Your task to perform on an android device: Clear the cart on target.com. Image 0: 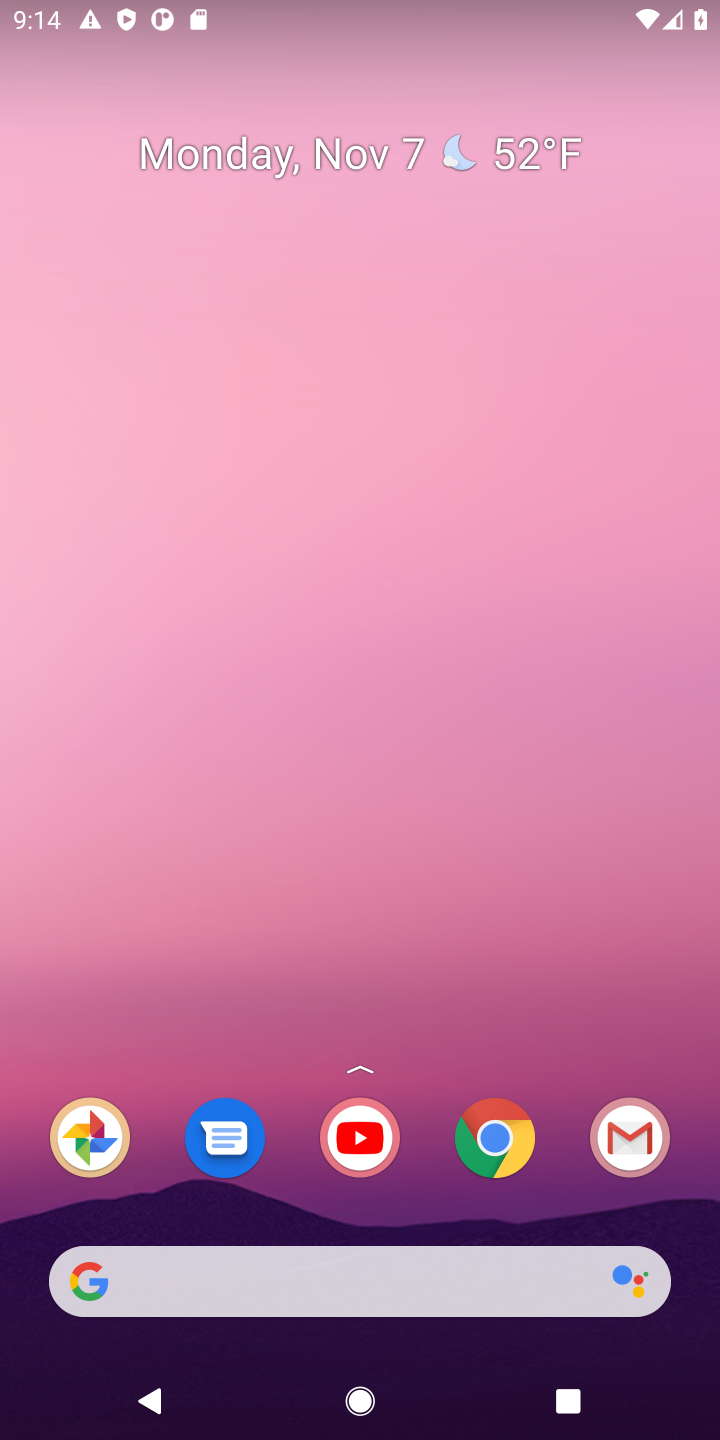
Step 0: click (375, 199)
Your task to perform on an android device: Clear the cart on target.com. Image 1: 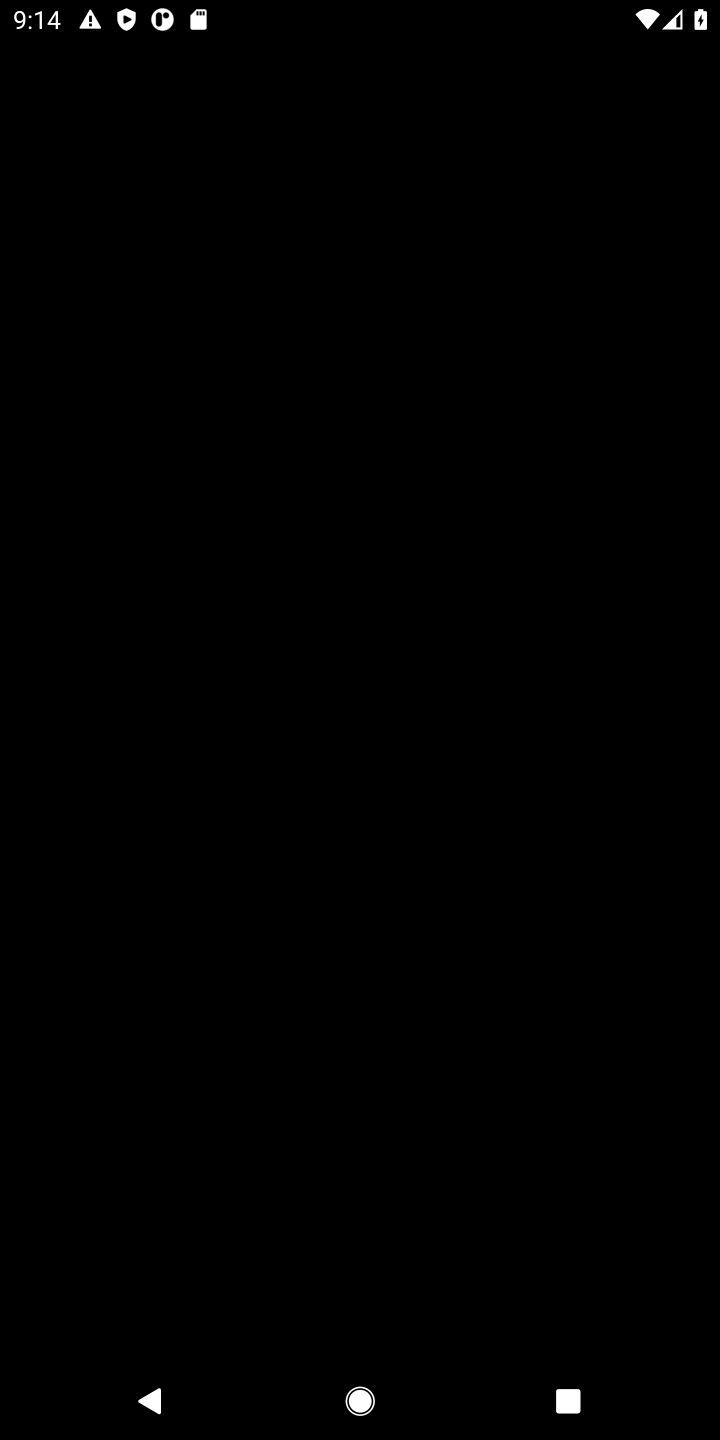
Step 1: press home button
Your task to perform on an android device: Clear the cart on target.com. Image 2: 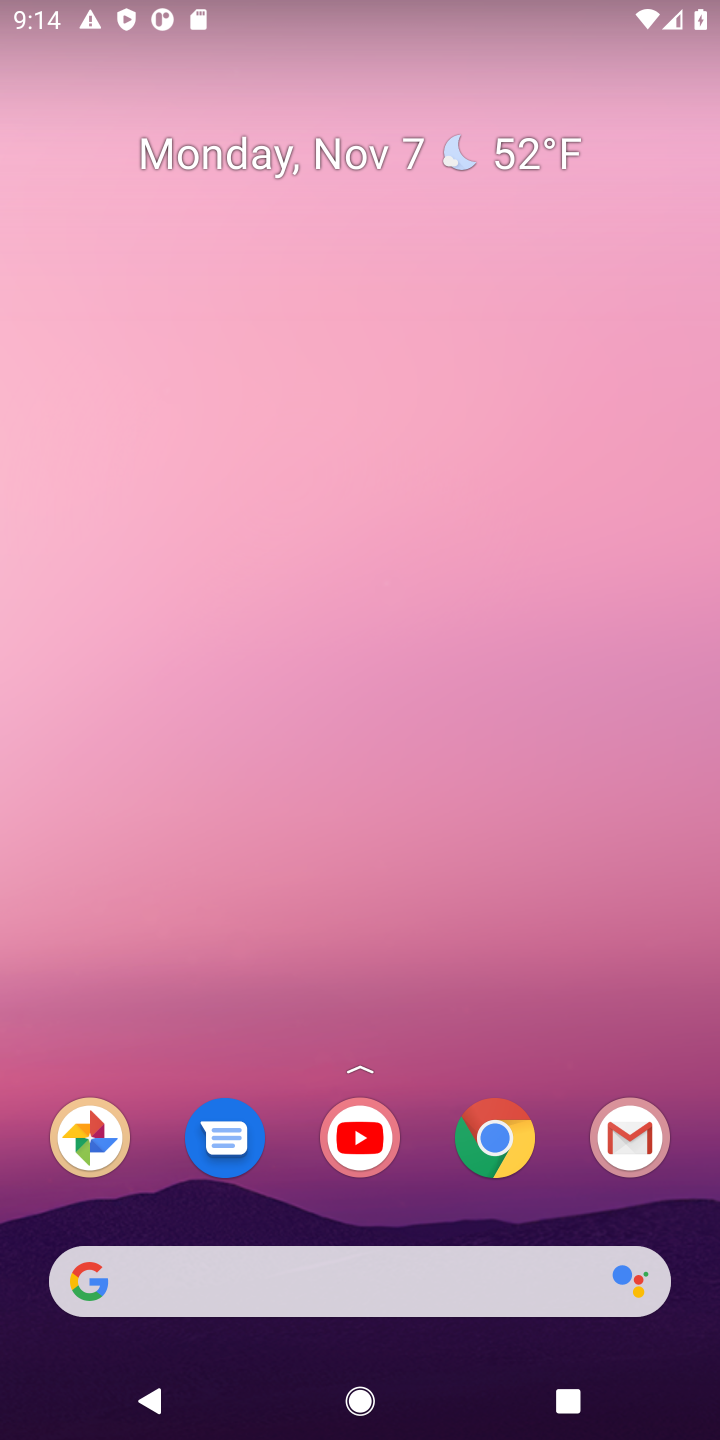
Step 2: drag from (405, 1217) to (421, 259)
Your task to perform on an android device: Clear the cart on target.com. Image 3: 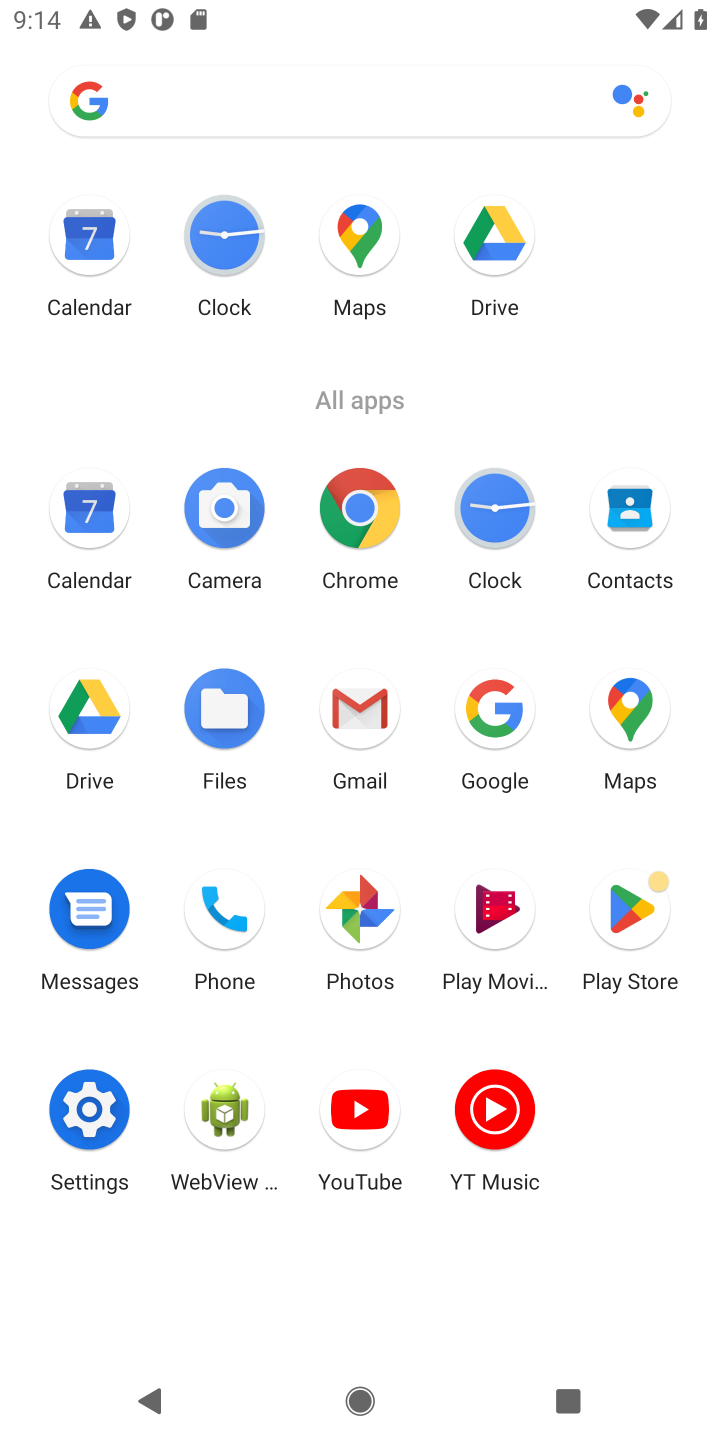
Step 3: click (366, 508)
Your task to perform on an android device: Clear the cart on target.com. Image 4: 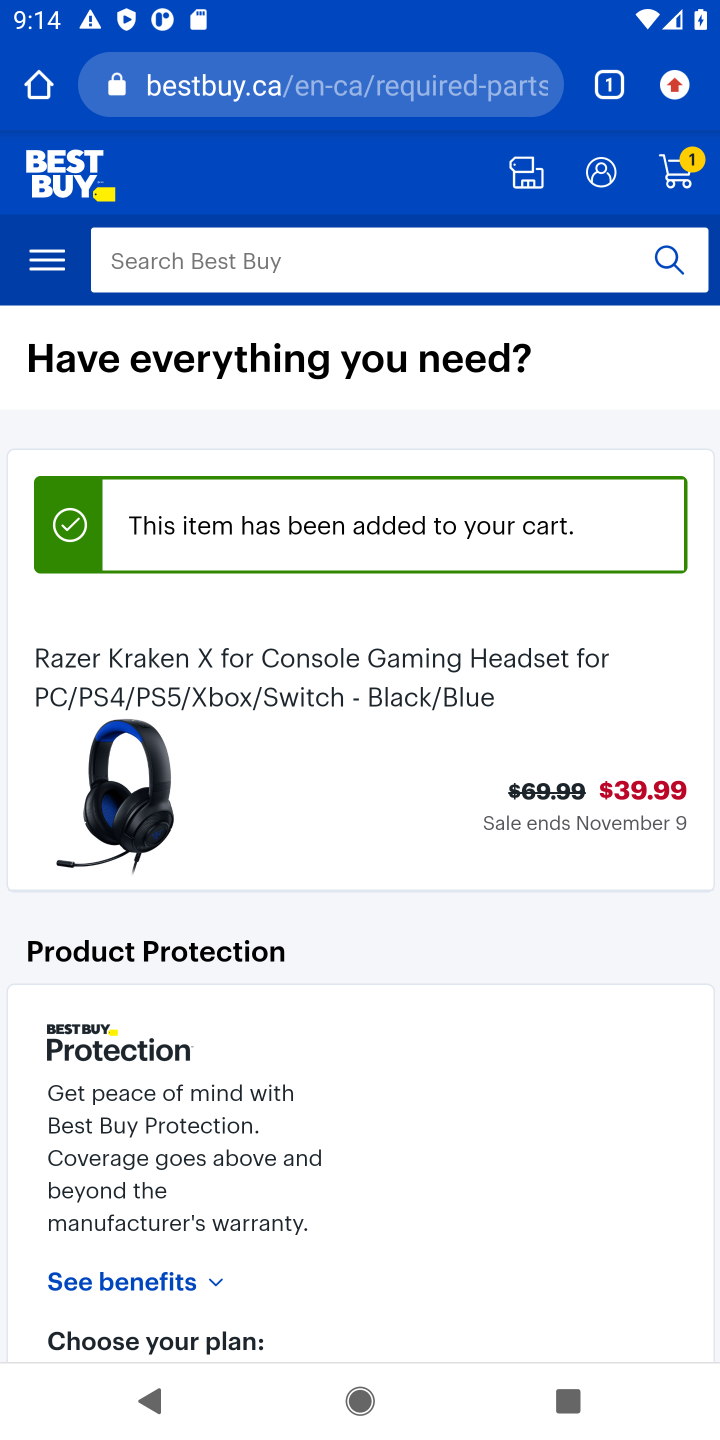
Step 4: click (408, 263)
Your task to perform on an android device: Clear the cart on target.com. Image 5: 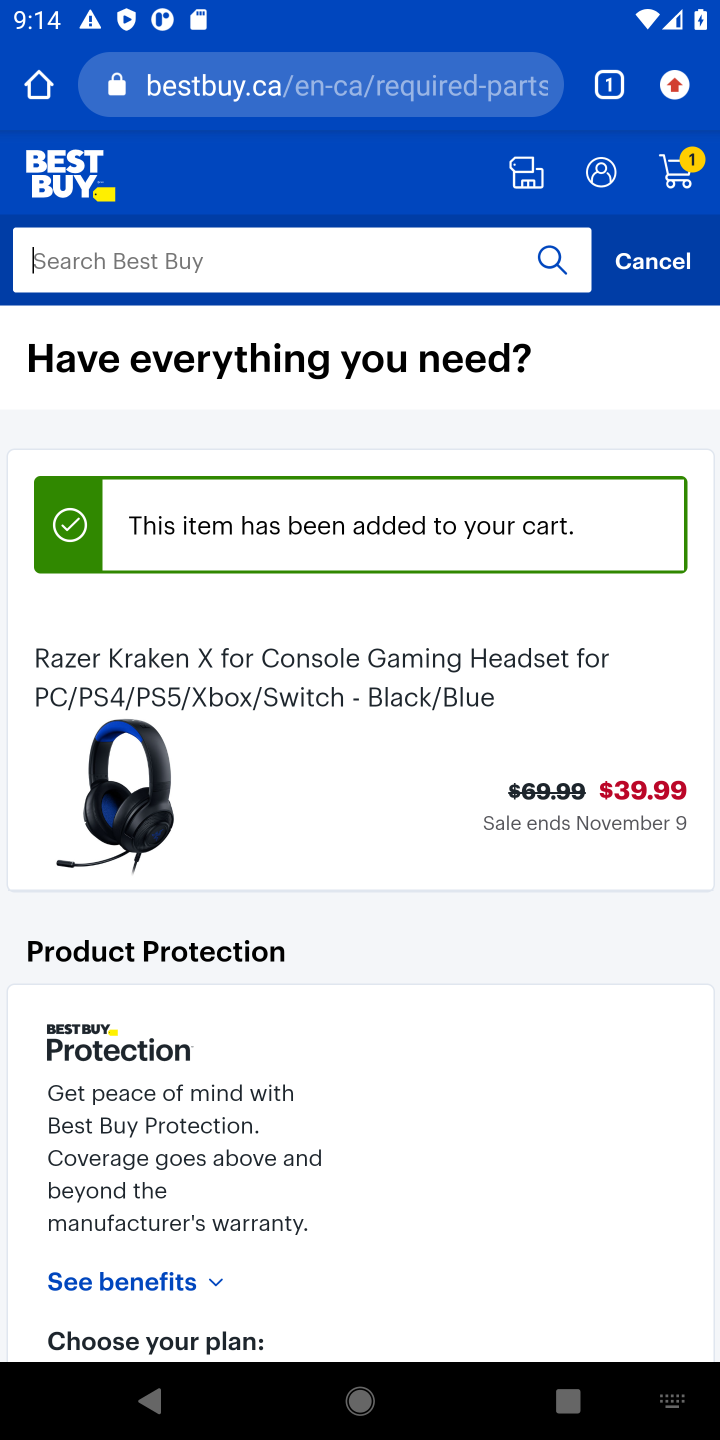
Step 5: click (311, 79)
Your task to perform on an android device: Clear the cart on target.com. Image 6: 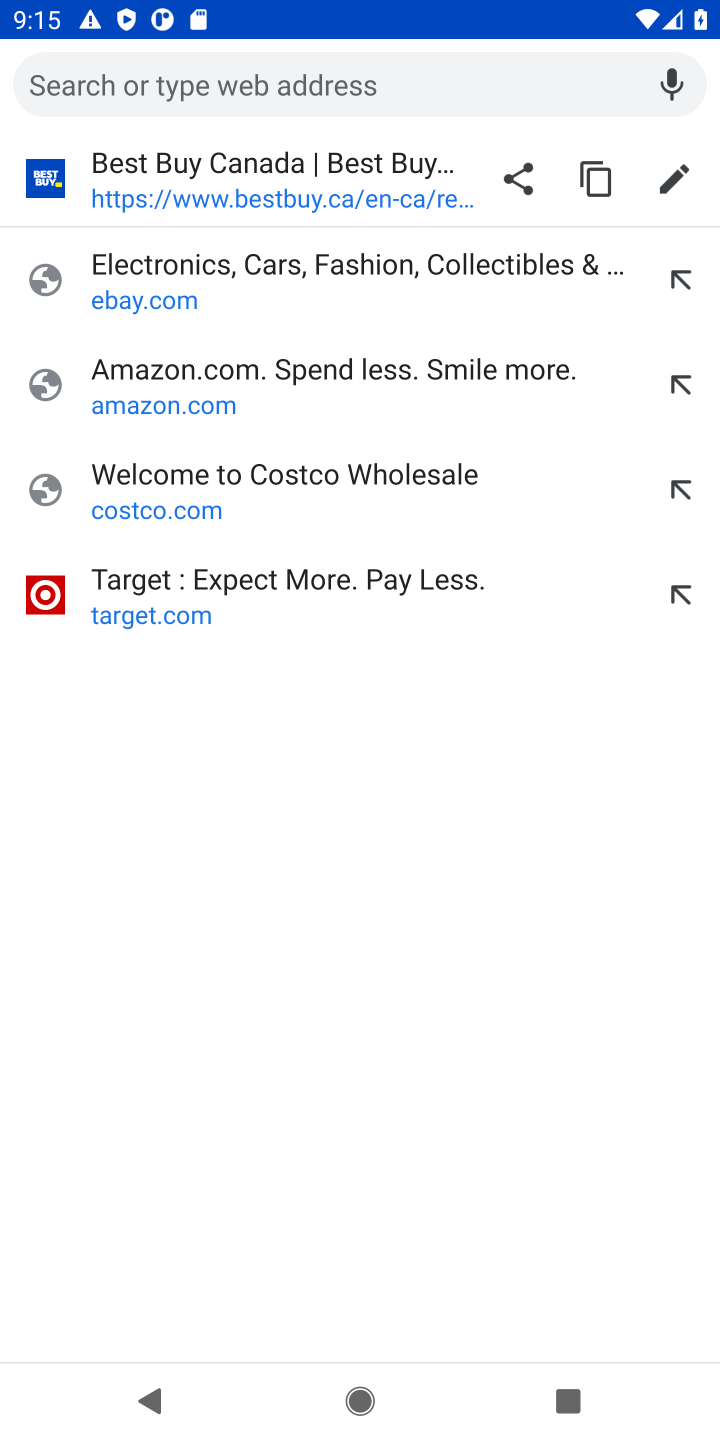
Step 6: type "target.com"
Your task to perform on an android device: Clear the cart on target.com. Image 7: 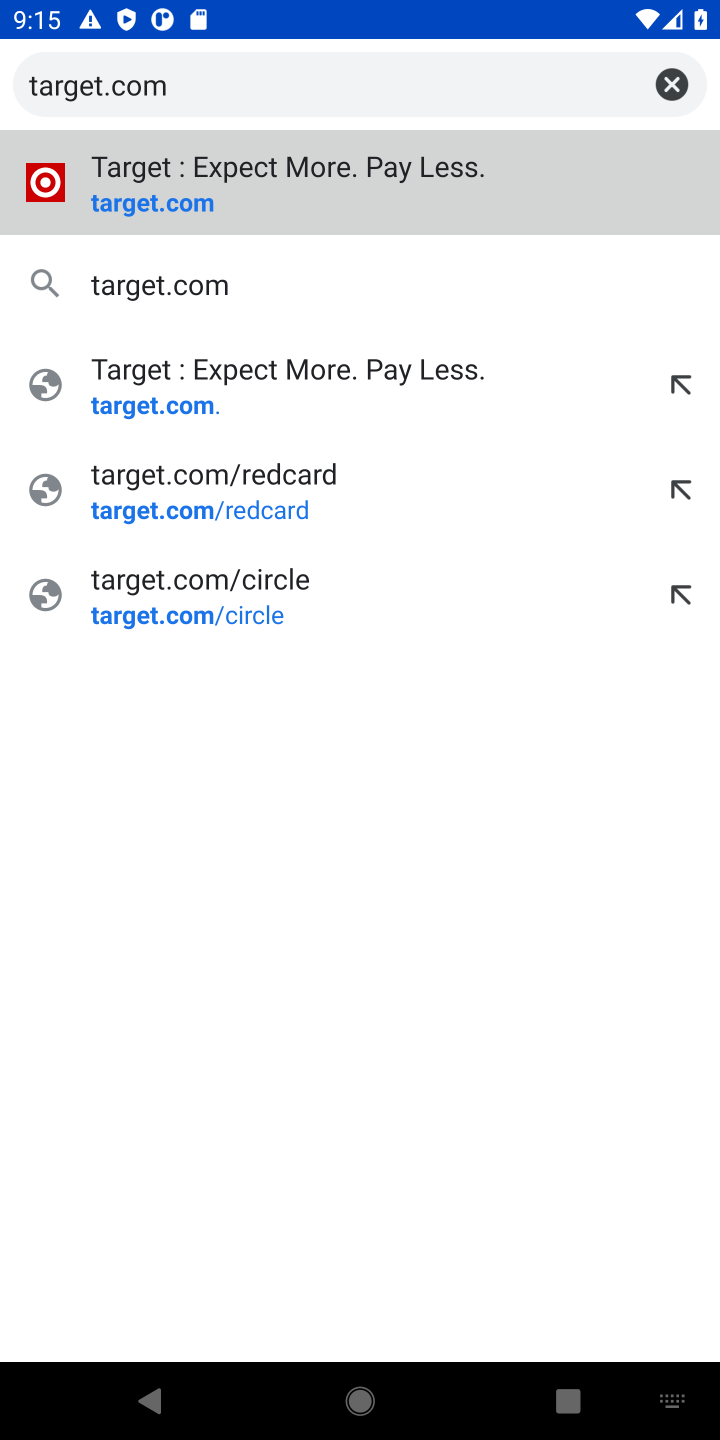
Step 7: press enter
Your task to perform on an android device: Clear the cart on target.com. Image 8: 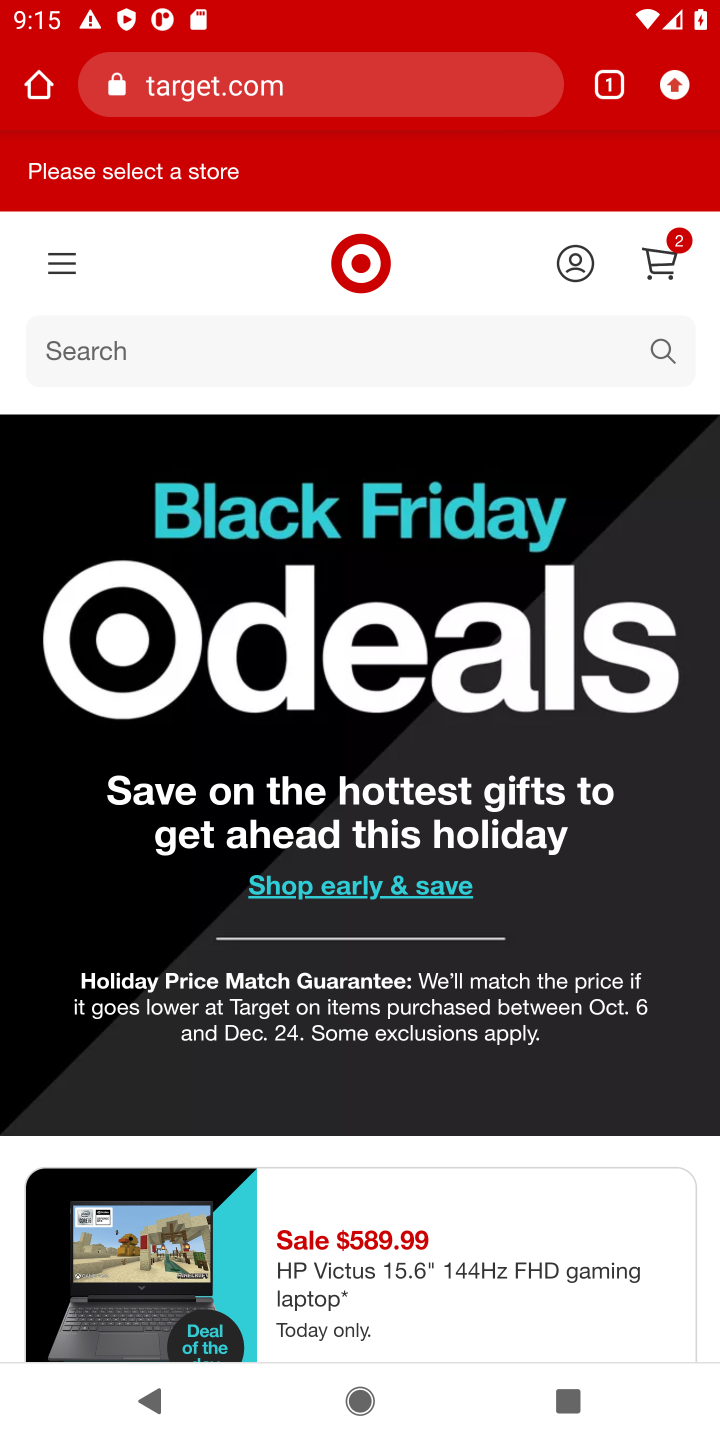
Step 8: click (679, 263)
Your task to perform on an android device: Clear the cart on target.com. Image 9: 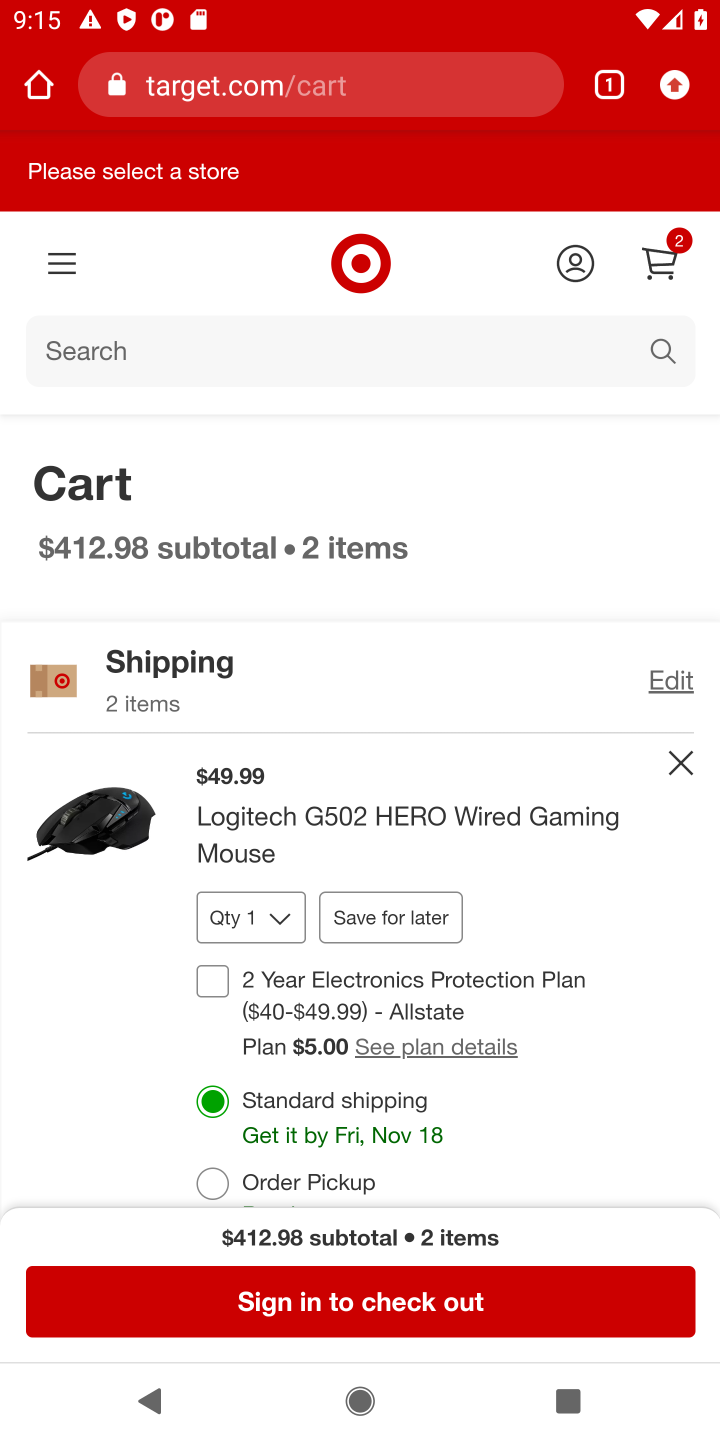
Step 9: click (690, 749)
Your task to perform on an android device: Clear the cart on target.com. Image 10: 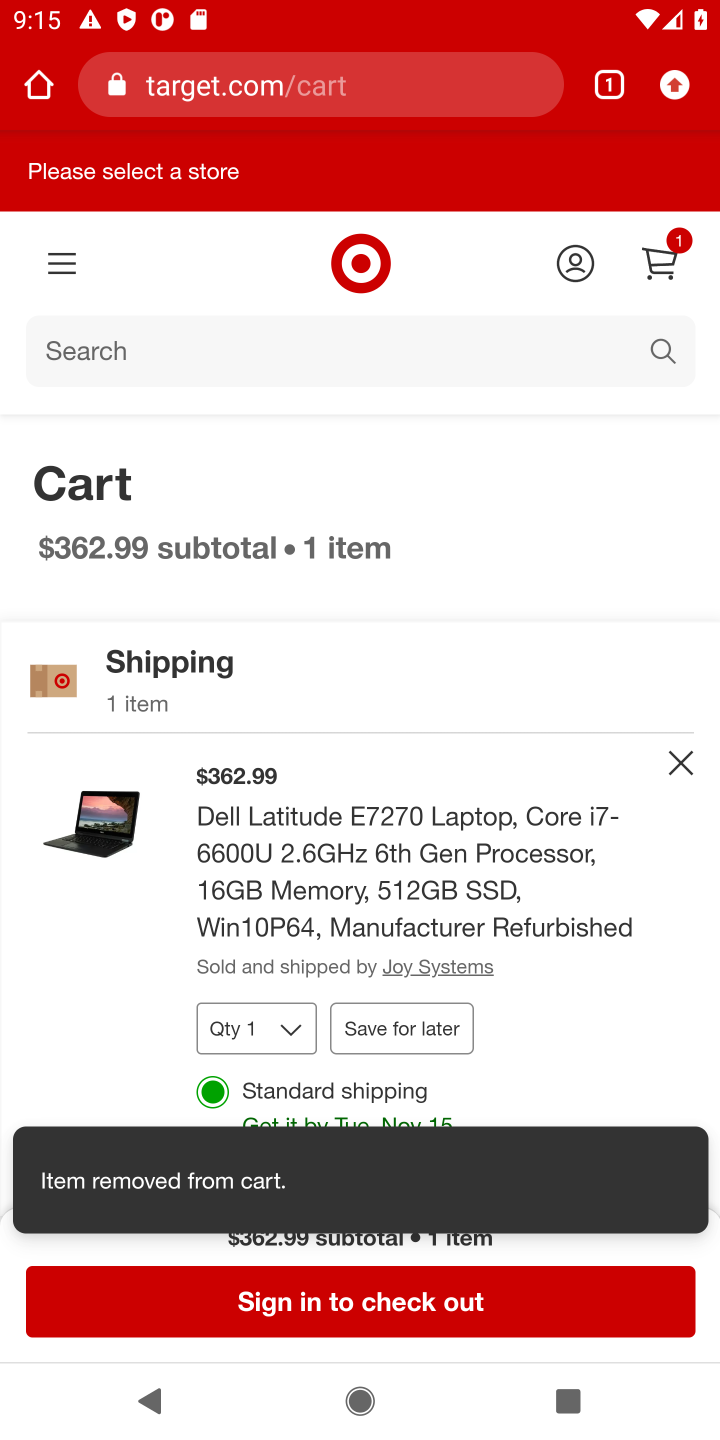
Step 10: click (690, 749)
Your task to perform on an android device: Clear the cart on target.com. Image 11: 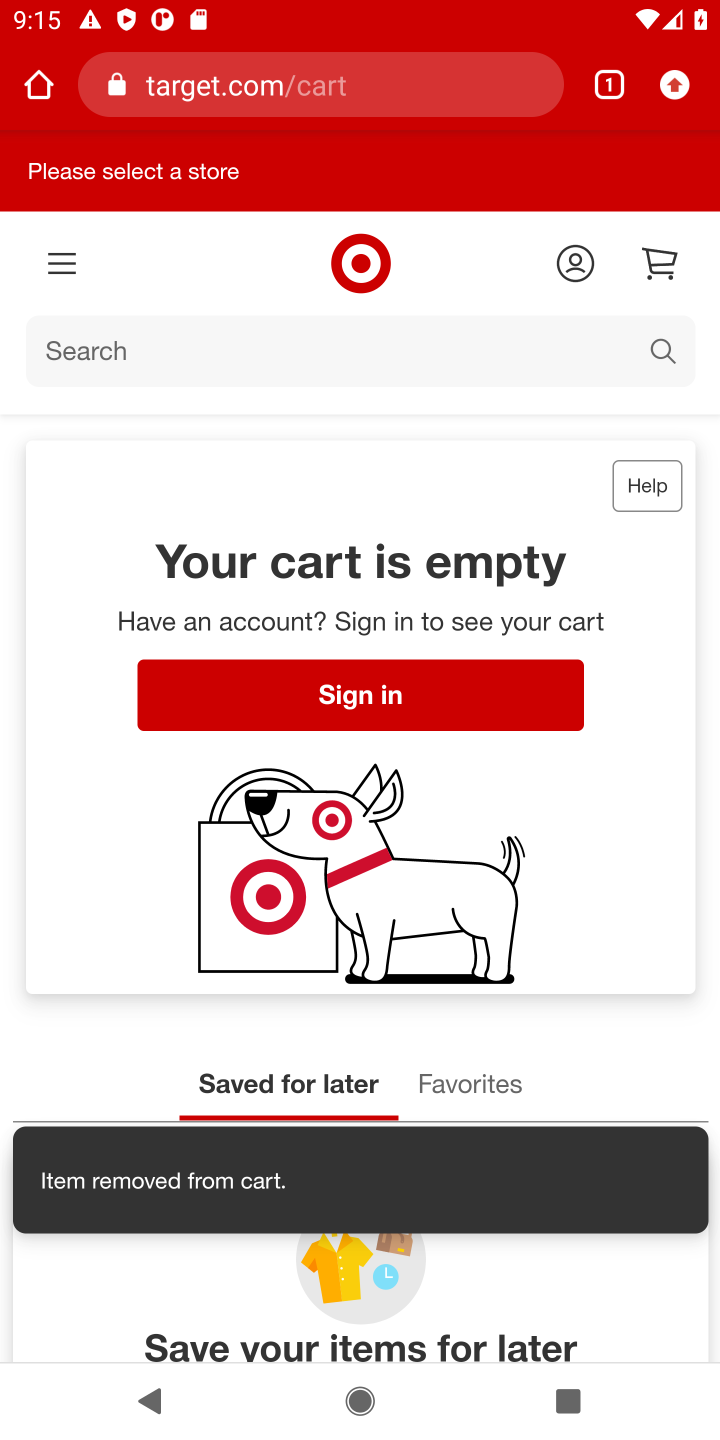
Step 11: task complete